Your task to perform on an android device: turn off wifi Image 0: 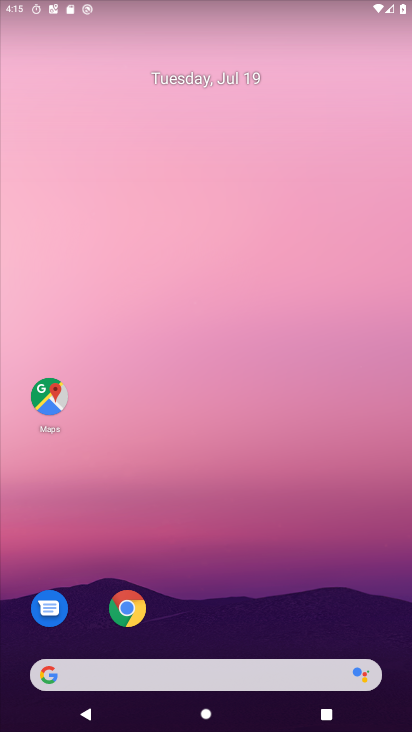
Step 0: drag from (210, 677) to (300, 212)
Your task to perform on an android device: turn off wifi Image 1: 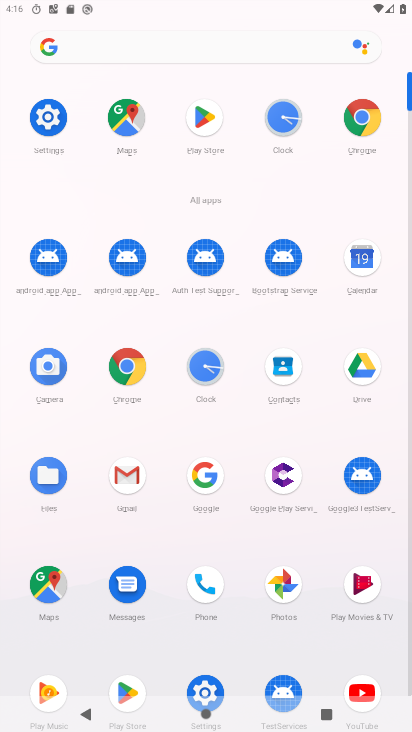
Step 1: click (46, 116)
Your task to perform on an android device: turn off wifi Image 2: 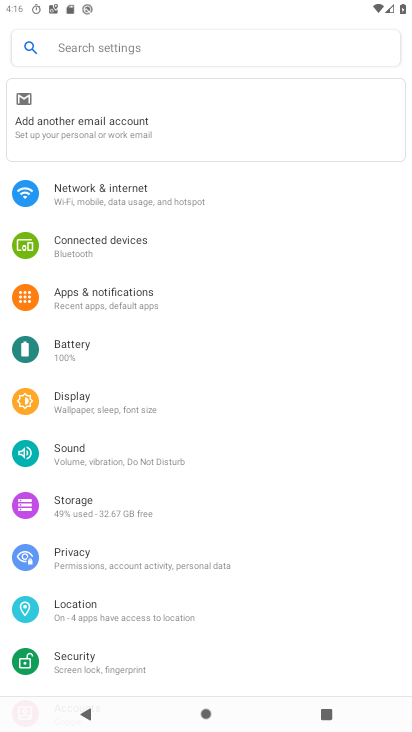
Step 2: click (106, 193)
Your task to perform on an android device: turn off wifi Image 3: 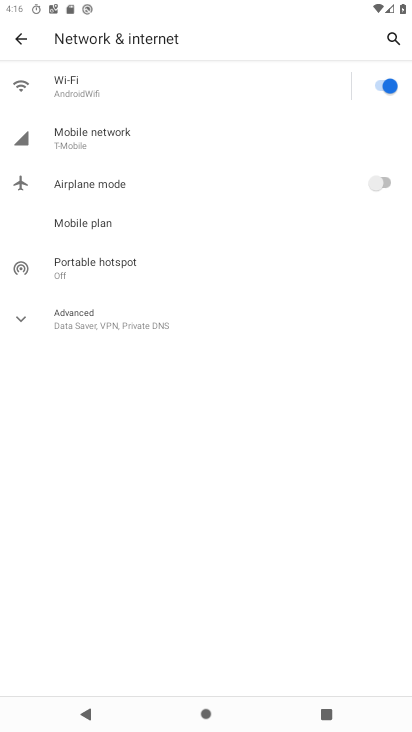
Step 3: click (381, 81)
Your task to perform on an android device: turn off wifi Image 4: 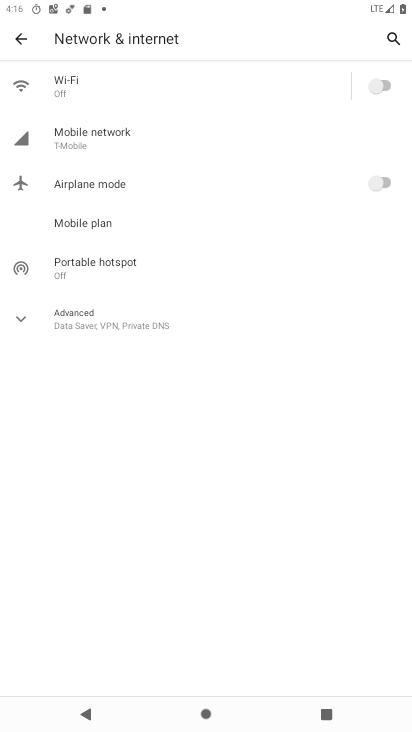
Step 4: task complete